Your task to perform on an android device: Go to Google Image 0: 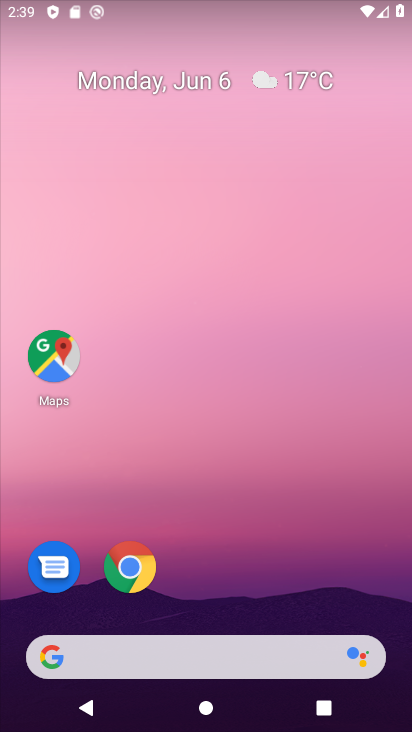
Step 0: drag from (228, 621) to (127, 22)
Your task to perform on an android device: Go to Google Image 1: 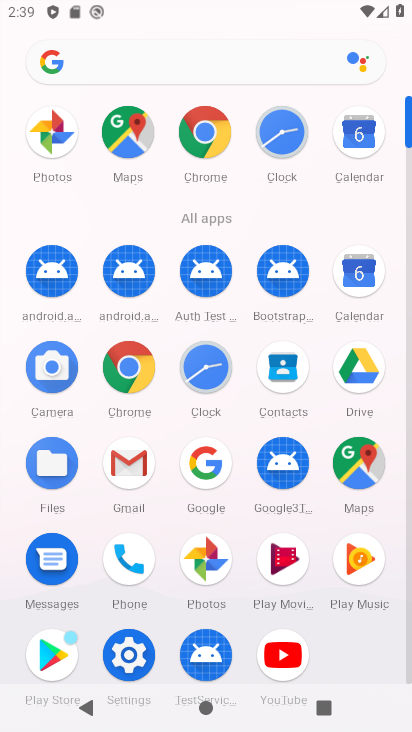
Step 1: click (204, 460)
Your task to perform on an android device: Go to Google Image 2: 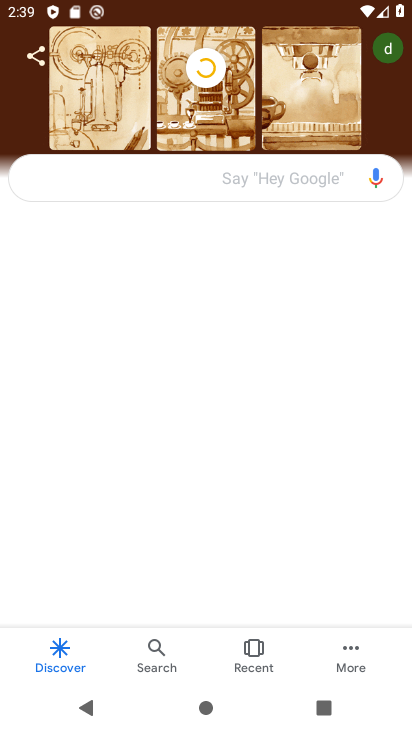
Step 2: task complete